Your task to perform on an android device: Go to privacy settings Image 0: 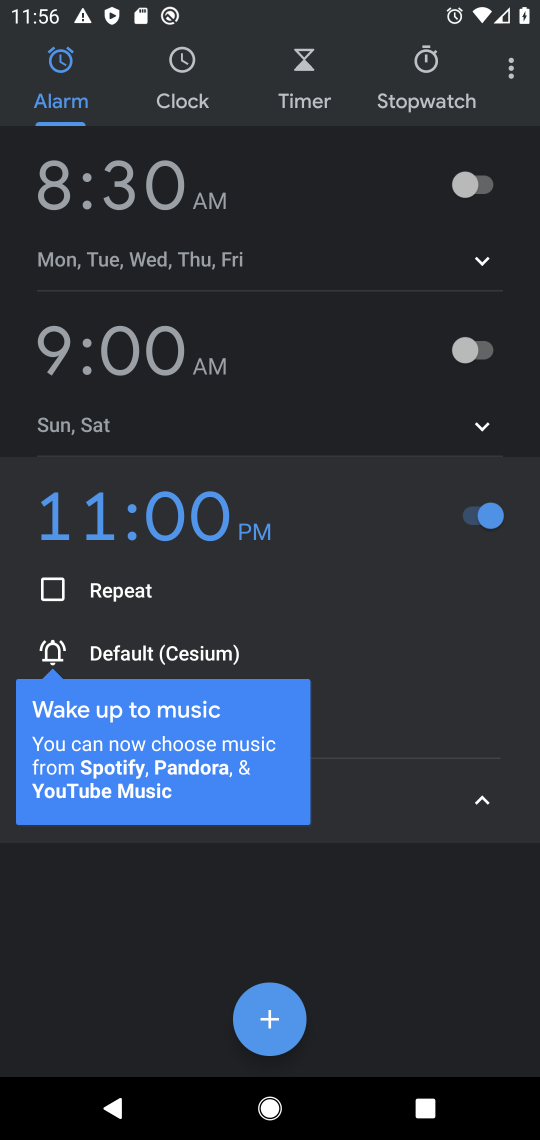
Step 0: press home button
Your task to perform on an android device: Go to privacy settings Image 1: 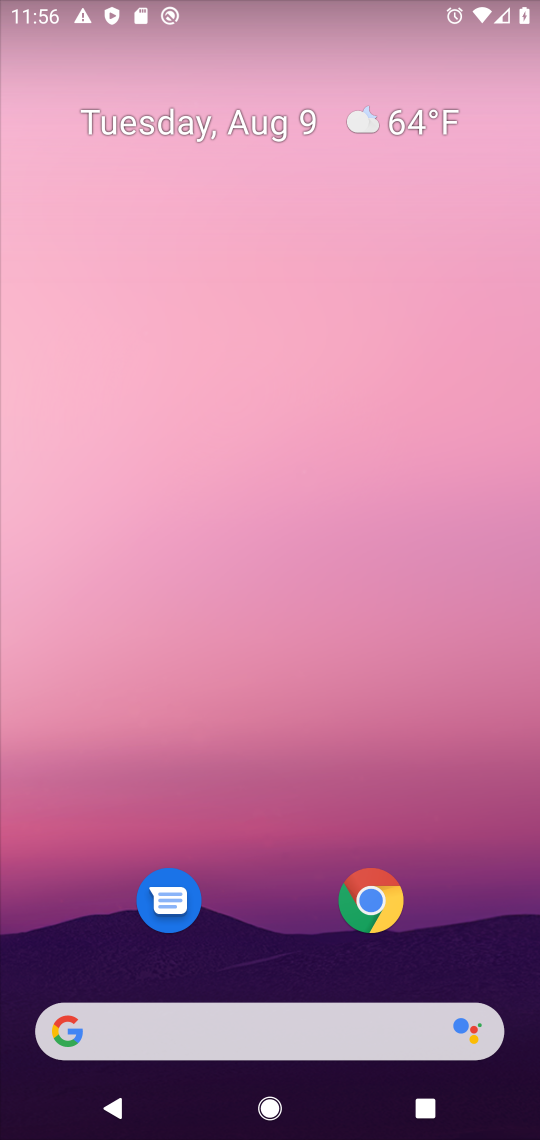
Step 1: drag from (264, 919) to (271, 6)
Your task to perform on an android device: Go to privacy settings Image 2: 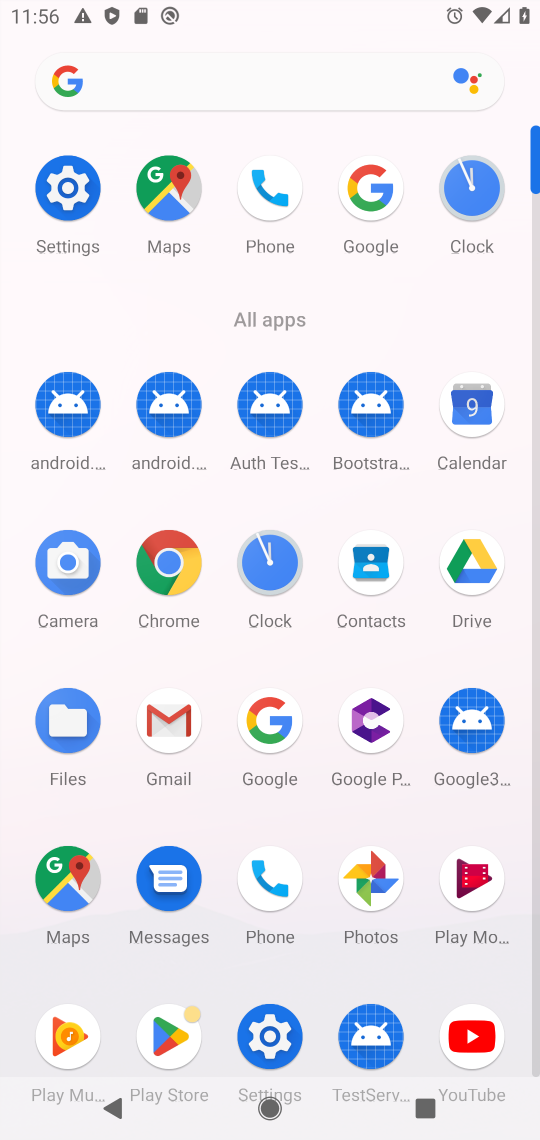
Step 2: click (69, 184)
Your task to perform on an android device: Go to privacy settings Image 3: 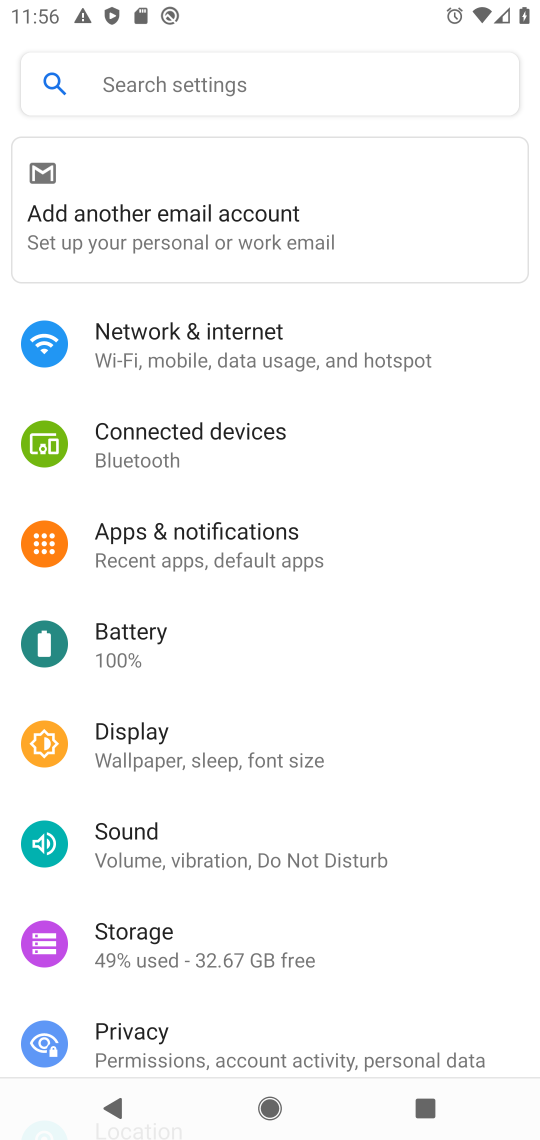
Step 3: drag from (349, 754) to (347, 270)
Your task to perform on an android device: Go to privacy settings Image 4: 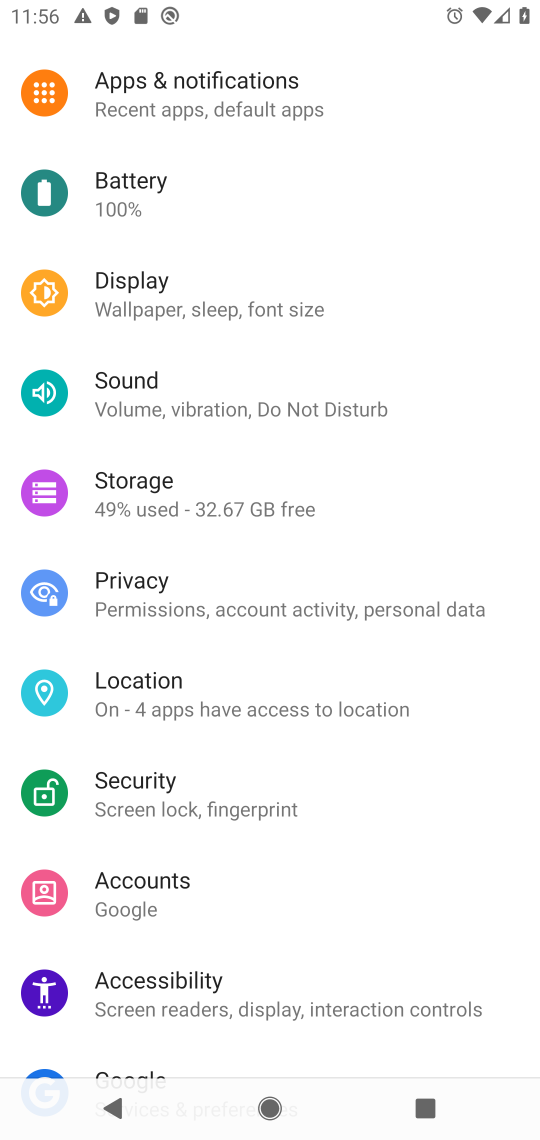
Step 4: click (262, 597)
Your task to perform on an android device: Go to privacy settings Image 5: 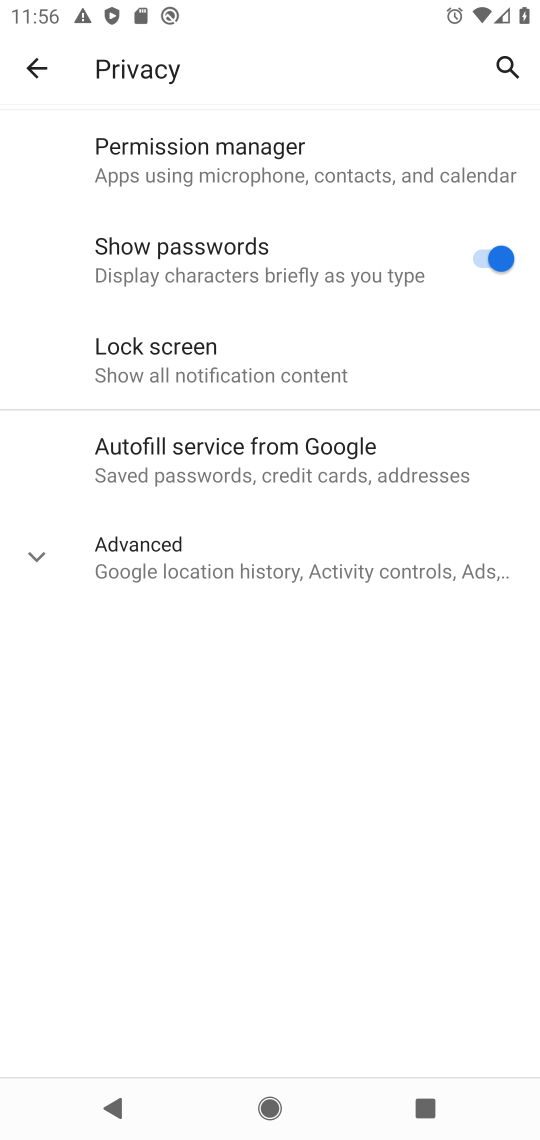
Step 5: click (39, 557)
Your task to perform on an android device: Go to privacy settings Image 6: 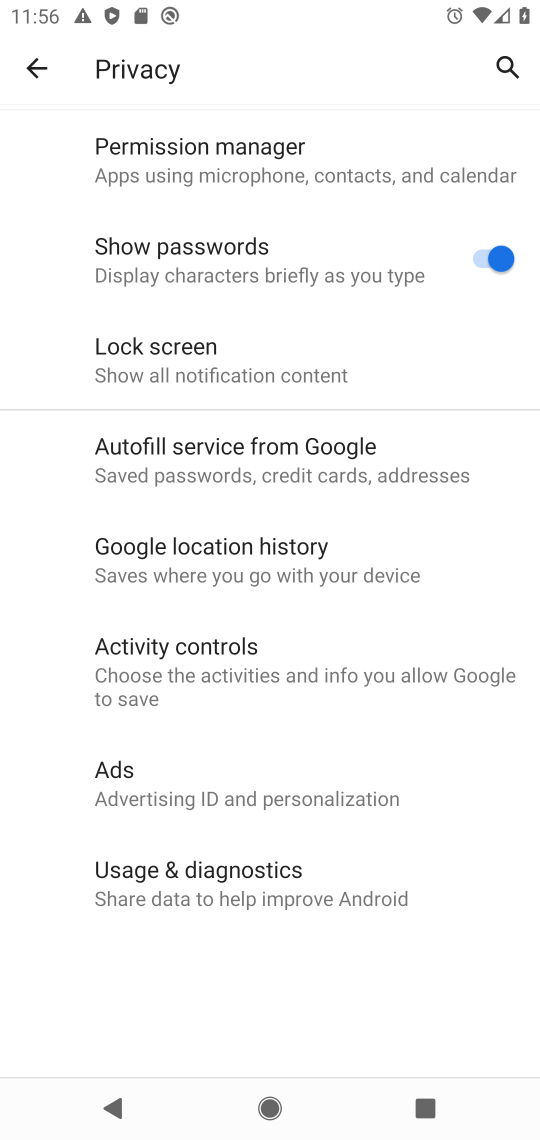
Step 6: task complete